Your task to perform on an android device: turn vacation reply on in the gmail app Image 0: 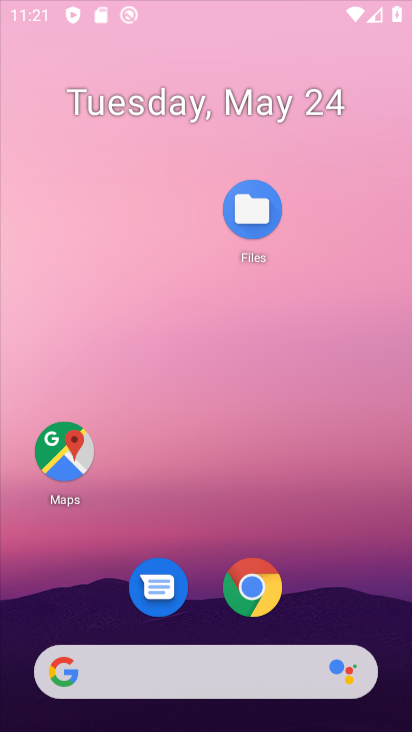
Step 0: press home button
Your task to perform on an android device: turn vacation reply on in the gmail app Image 1: 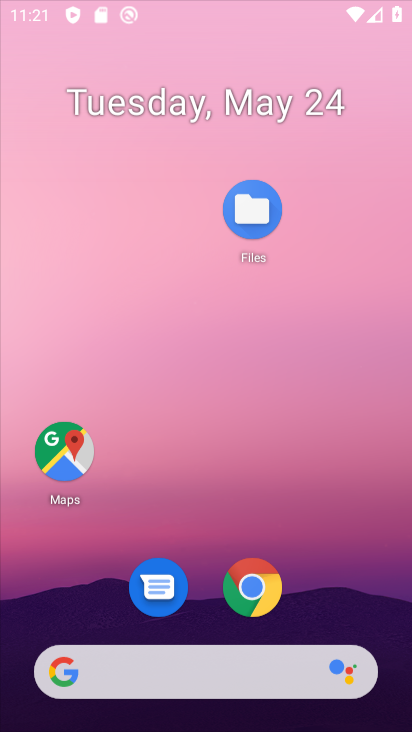
Step 1: click (82, 56)
Your task to perform on an android device: turn vacation reply on in the gmail app Image 2: 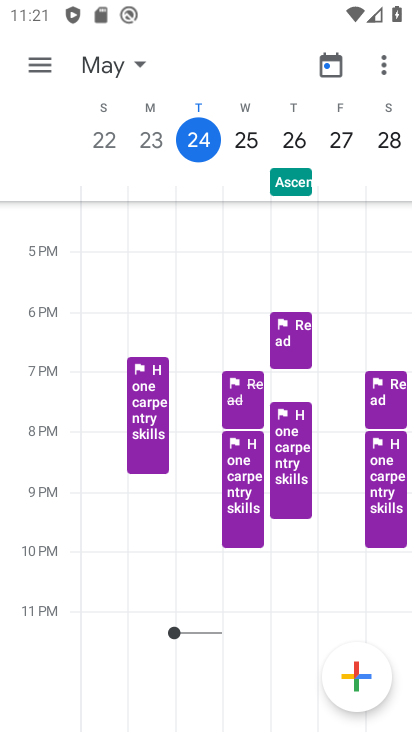
Step 2: press home button
Your task to perform on an android device: turn vacation reply on in the gmail app Image 3: 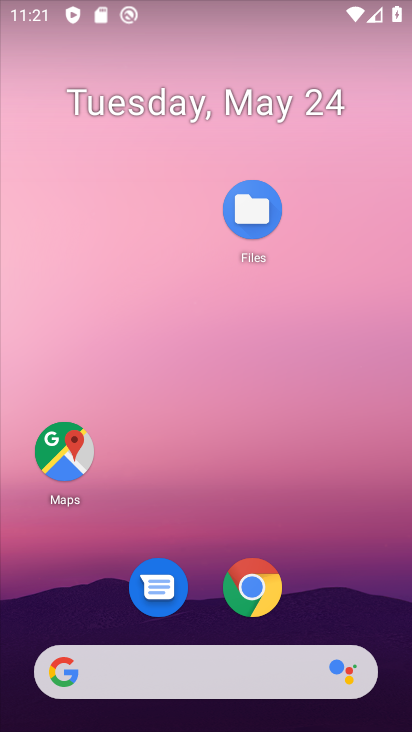
Step 3: drag from (169, 306) to (133, 242)
Your task to perform on an android device: turn vacation reply on in the gmail app Image 4: 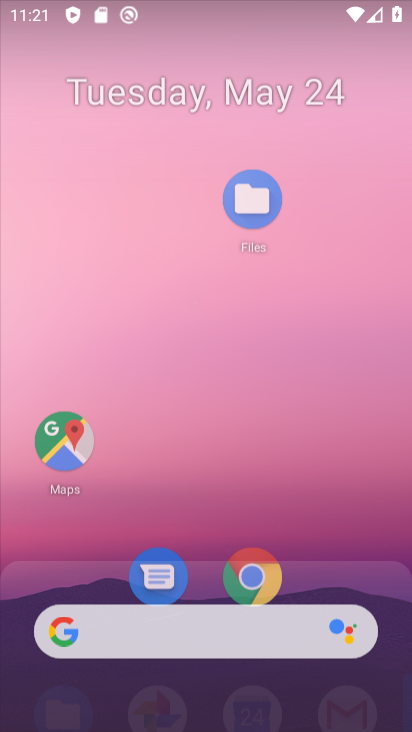
Step 4: click (111, 171)
Your task to perform on an android device: turn vacation reply on in the gmail app Image 5: 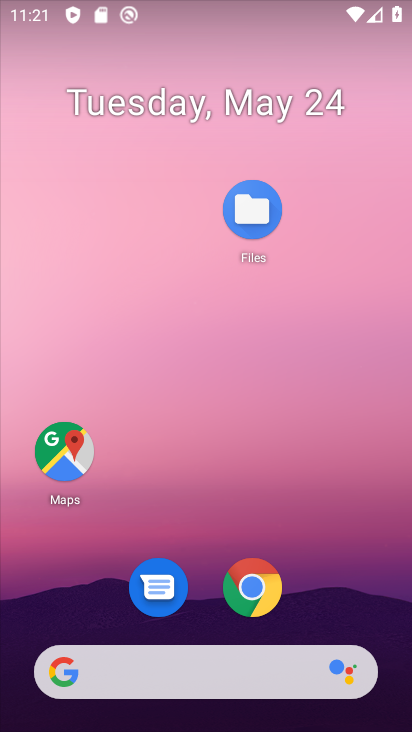
Step 5: drag from (257, 398) to (58, 54)
Your task to perform on an android device: turn vacation reply on in the gmail app Image 6: 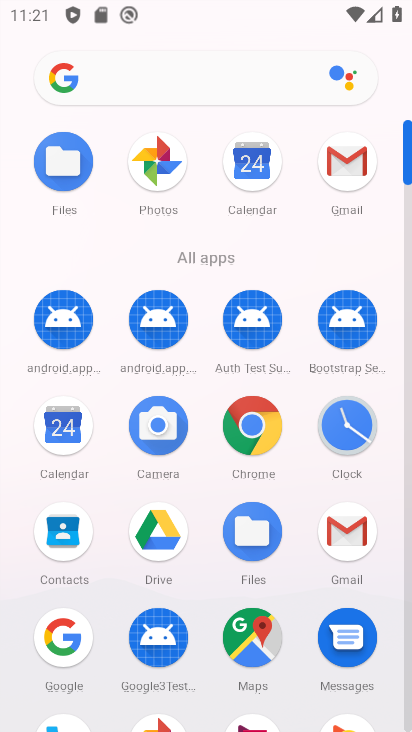
Step 6: click (366, 177)
Your task to perform on an android device: turn vacation reply on in the gmail app Image 7: 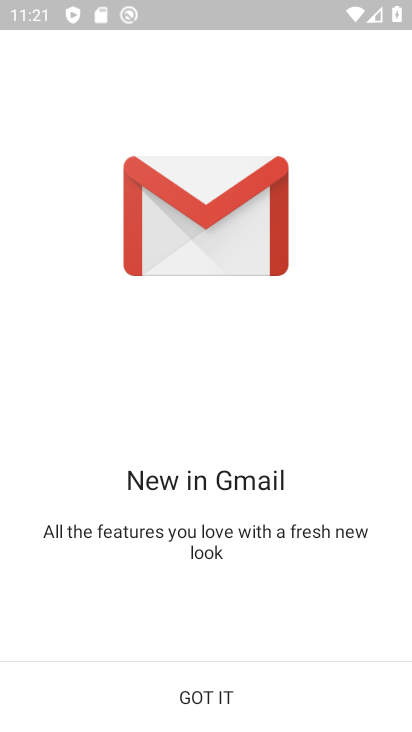
Step 7: click (203, 694)
Your task to perform on an android device: turn vacation reply on in the gmail app Image 8: 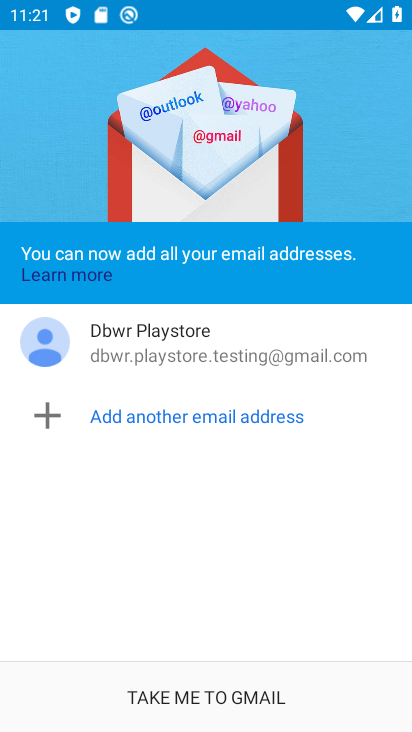
Step 8: click (204, 694)
Your task to perform on an android device: turn vacation reply on in the gmail app Image 9: 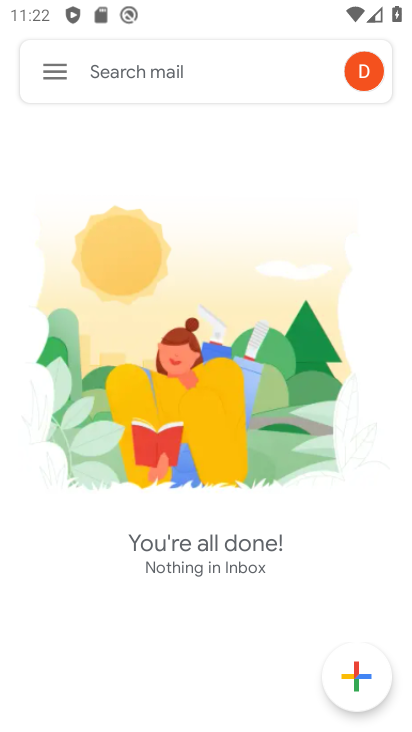
Step 9: click (65, 75)
Your task to perform on an android device: turn vacation reply on in the gmail app Image 10: 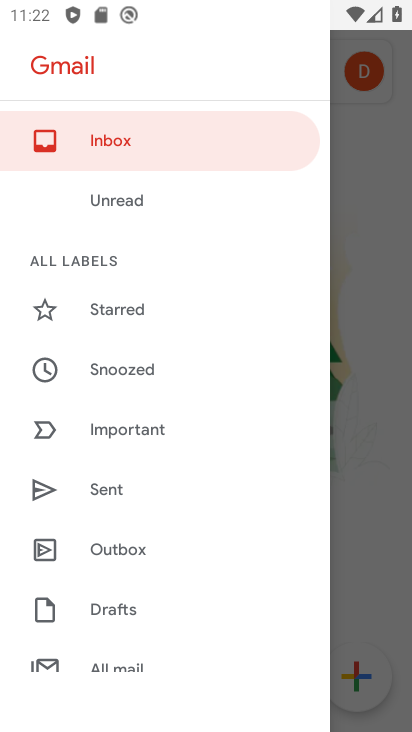
Step 10: drag from (217, 553) to (199, 384)
Your task to perform on an android device: turn vacation reply on in the gmail app Image 11: 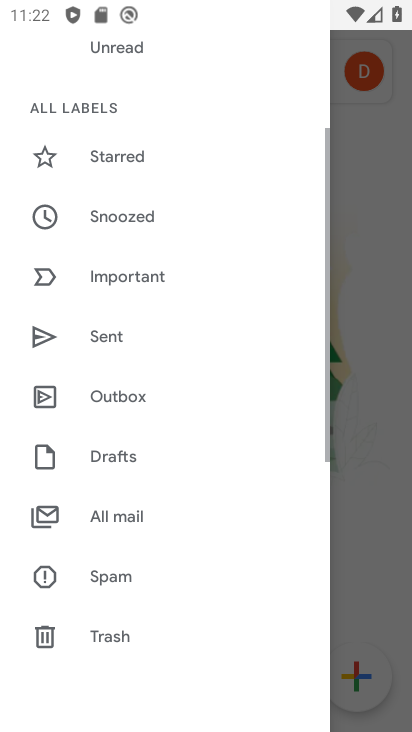
Step 11: drag from (193, 340) to (192, 151)
Your task to perform on an android device: turn vacation reply on in the gmail app Image 12: 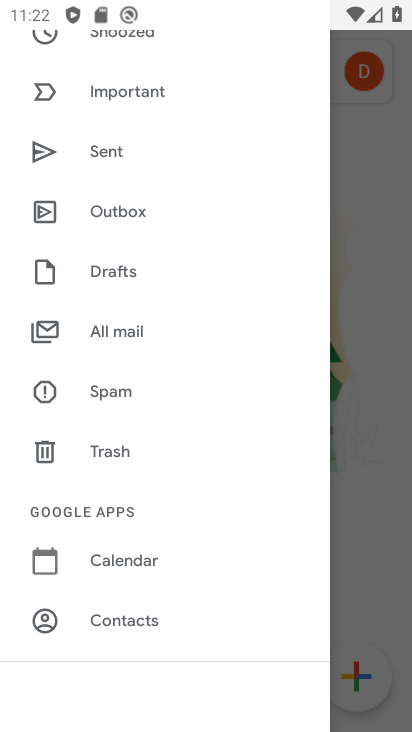
Step 12: click (156, 480)
Your task to perform on an android device: turn vacation reply on in the gmail app Image 13: 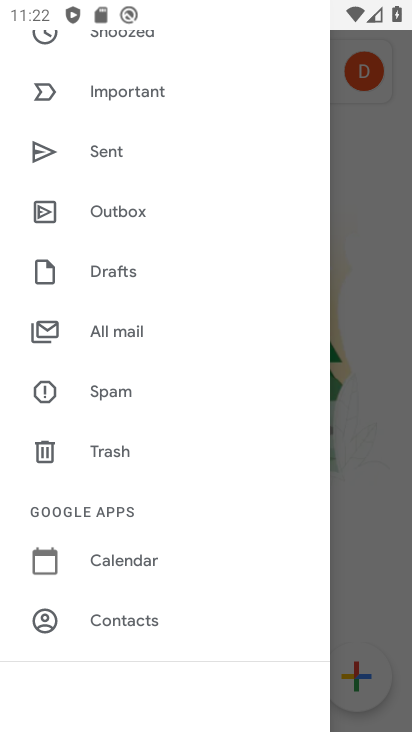
Step 13: click (156, 400)
Your task to perform on an android device: turn vacation reply on in the gmail app Image 14: 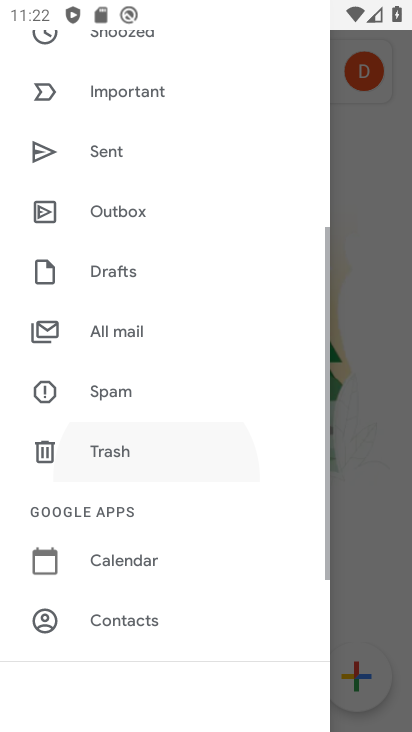
Step 14: drag from (156, 355) to (159, 273)
Your task to perform on an android device: turn vacation reply on in the gmail app Image 15: 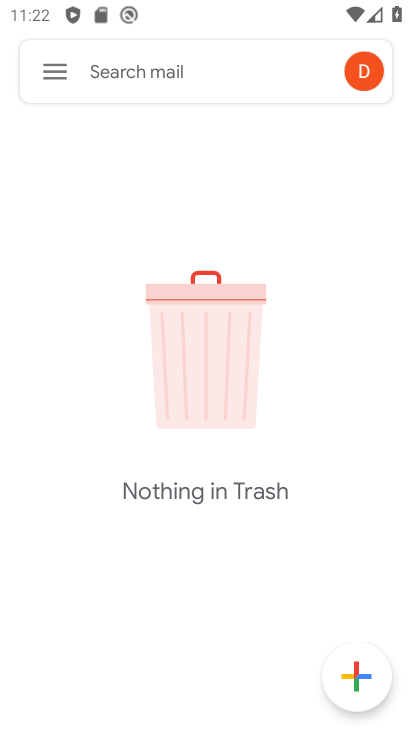
Step 15: click (54, 79)
Your task to perform on an android device: turn vacation reply on in the gmail app Image 16: 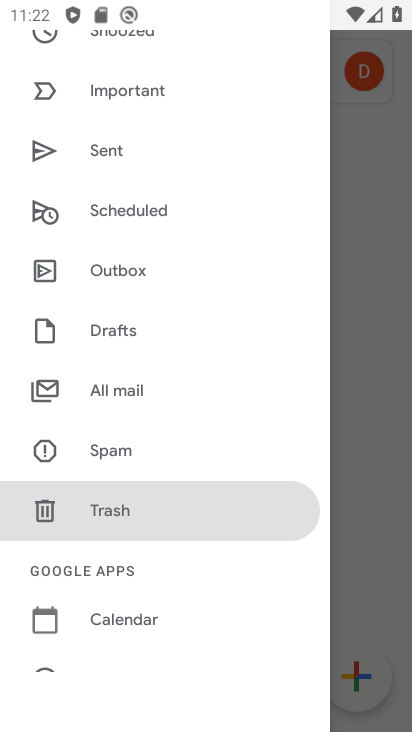
Step 16: drag from (154, 623) to (122, 412)
Your task to perform on an android device: turn vacation reply on in the gmail app Image 17: 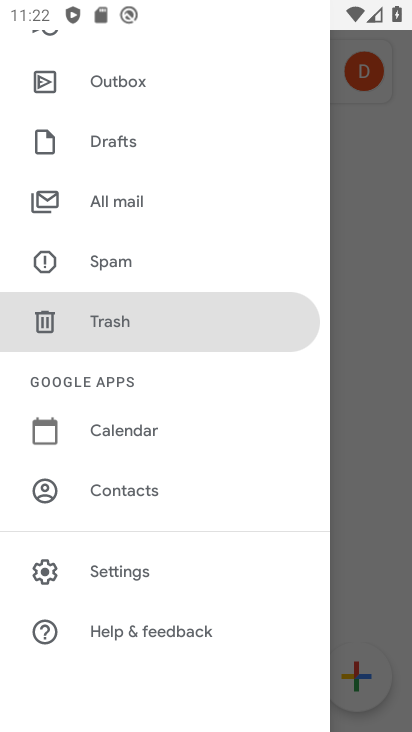
Step 17: click (86, 581)
Your task to perform on an android device: turn vacation reply on in the gmail app Image 18: 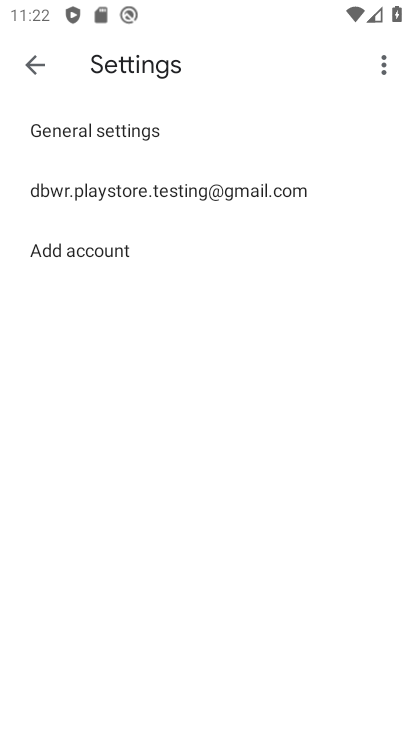
Step 18: click (169, 191)
Your task to perform on an android device: turn vacation reply on in the gmail app Image 19: 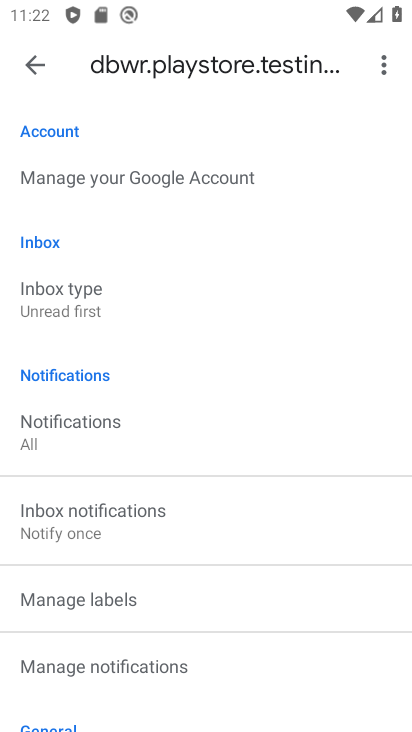
Step 19: drag from (306, 561) to (311, 169)
Your task to perform on an android device: turn vacation reply on in the gmail app Image 20: 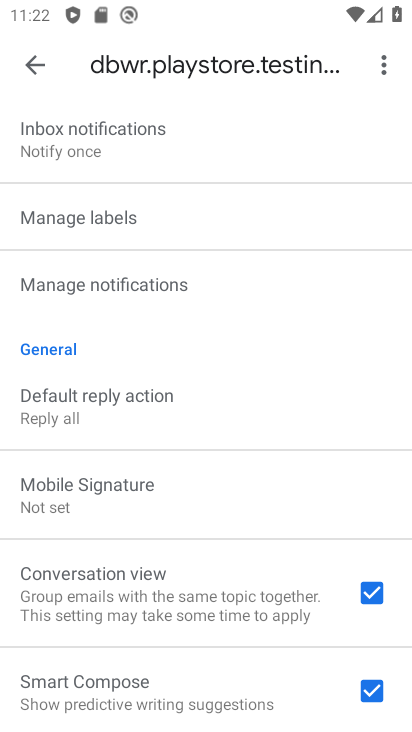
Step 20: drag from (276, 564) to (290, 128)
Your task to perform on an android device: turn vacation reply on in the gmail app Image 21: 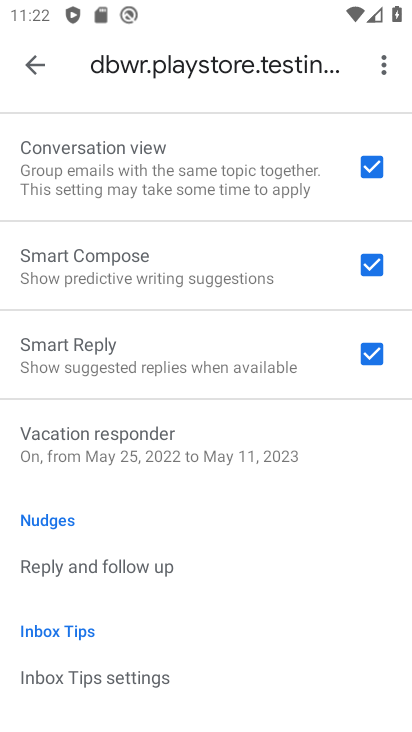
Step 21: click (131, 445)
Your task to perform on an android device: turn vacation reply on in the gmail app Image 22: 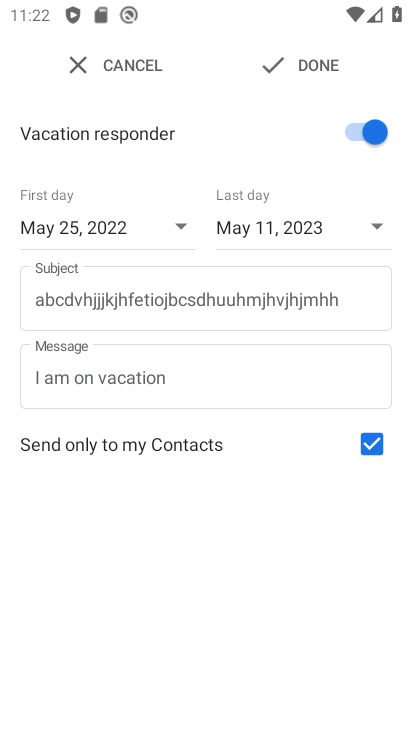
Step 22: task complete